Your task to perform on an android device: check data usage Image 0: 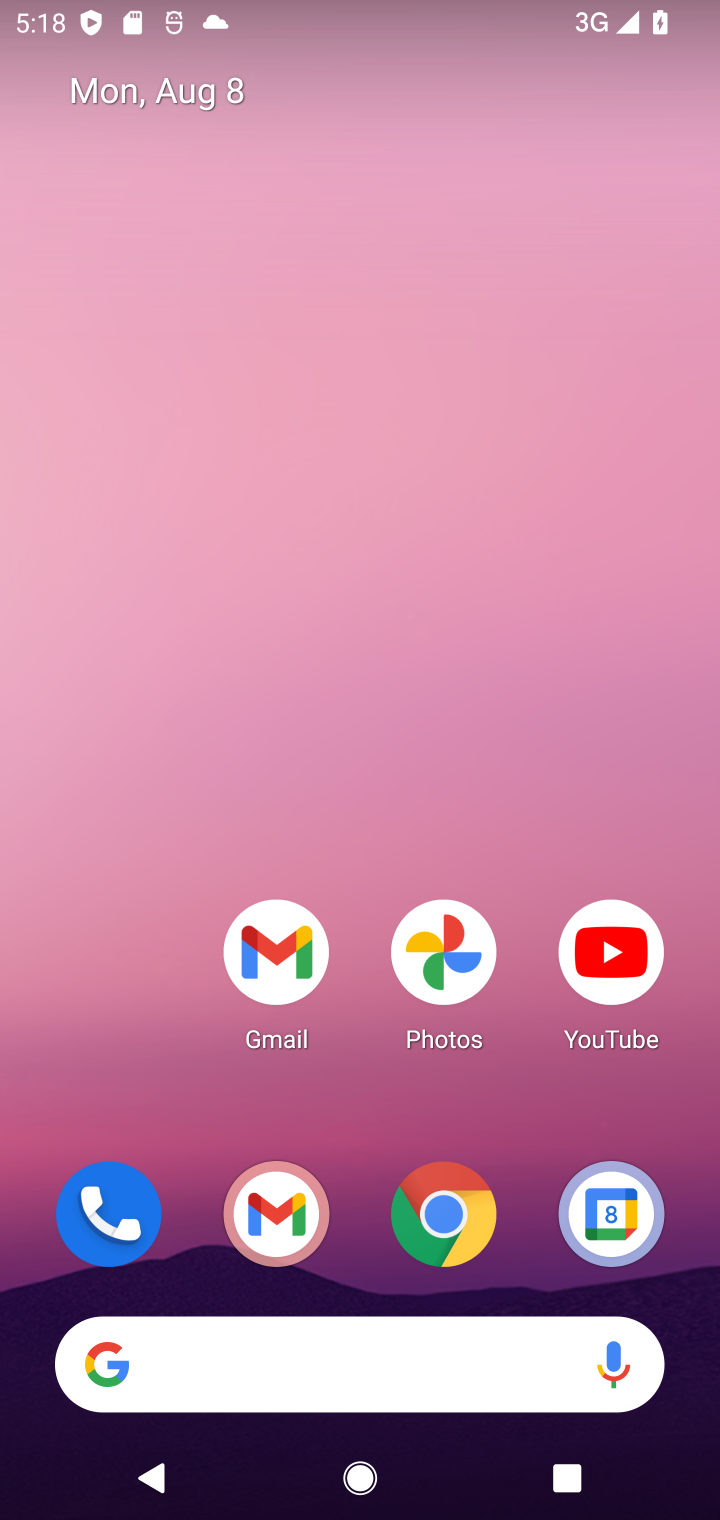
Step 0: drag from (388, 645) to (416, 79)
Your task to perform on an android device: check data usage Image 1: 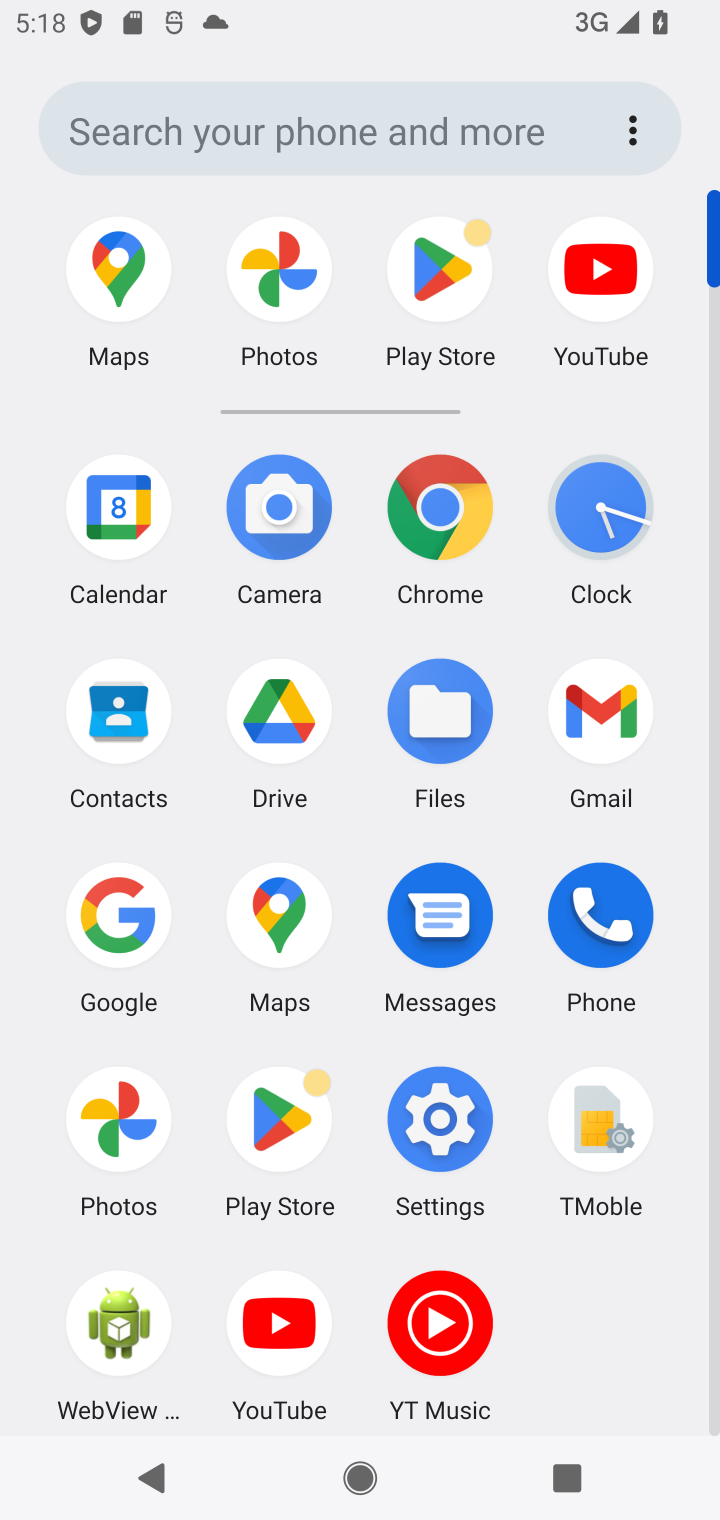
Step 1: click (432, 1122)
Your task to perform on an android device: check data usage Image 2: 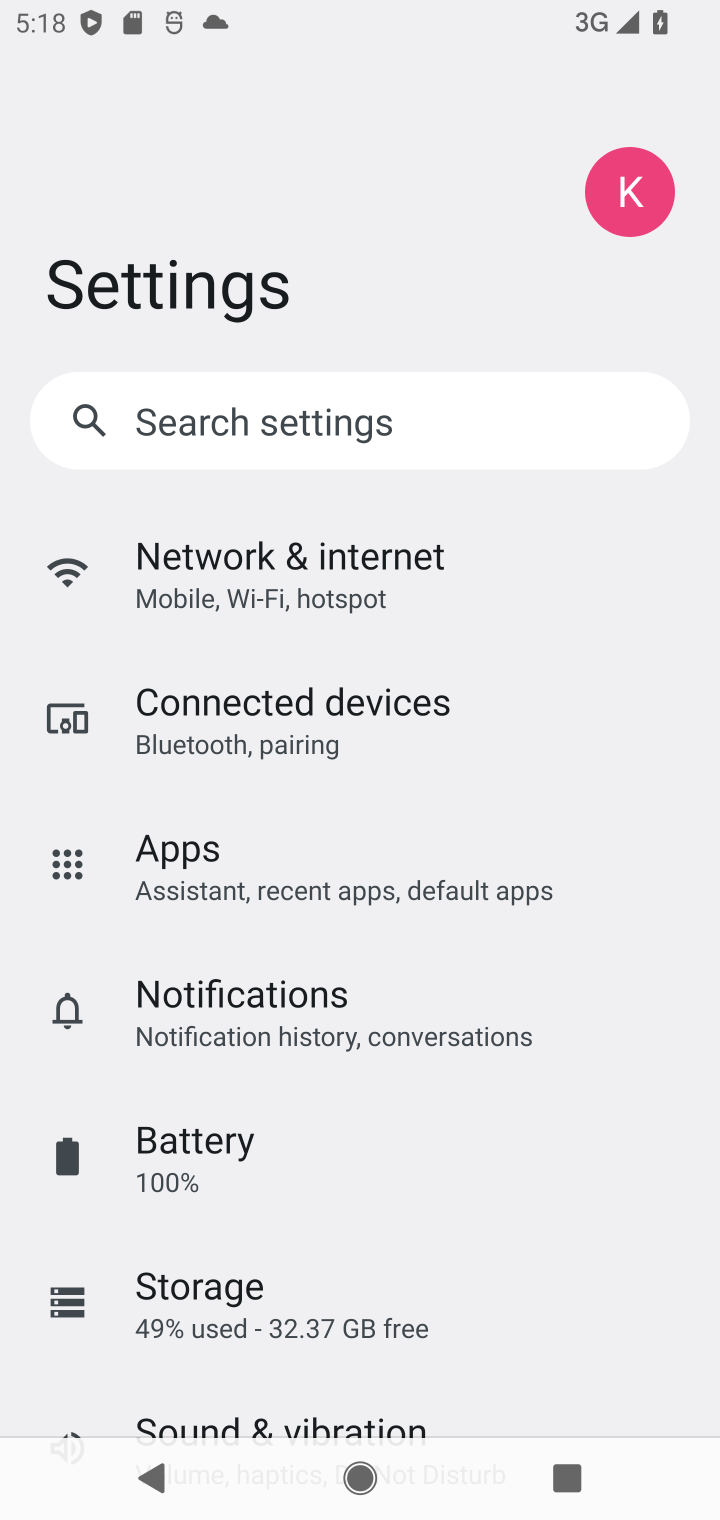
Step 2: drag from (202, 1330) to (230, 911)
Your task to perform on an android device: check data usage Image 3: 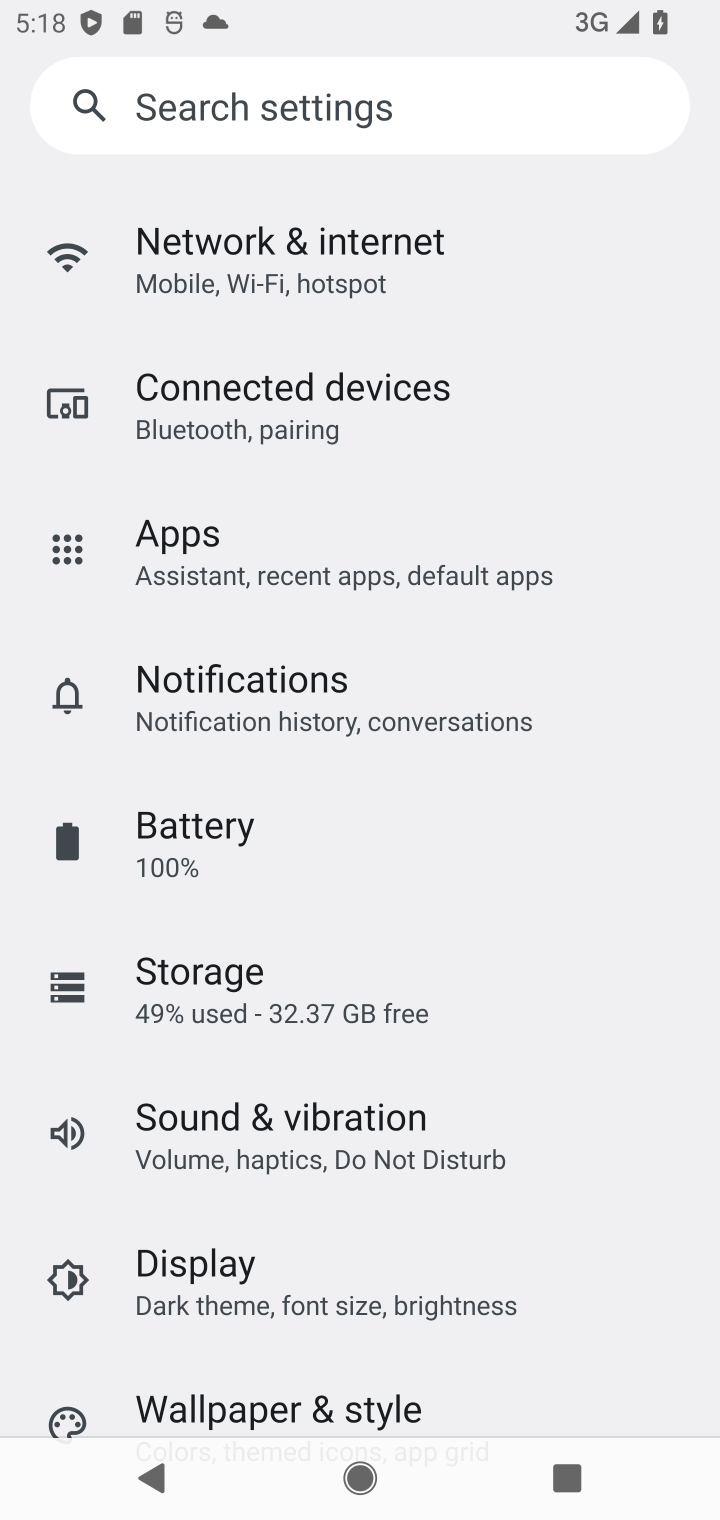
Step 3: click (256, 247)
Your task to perform on an android device: check data usage Image 4: 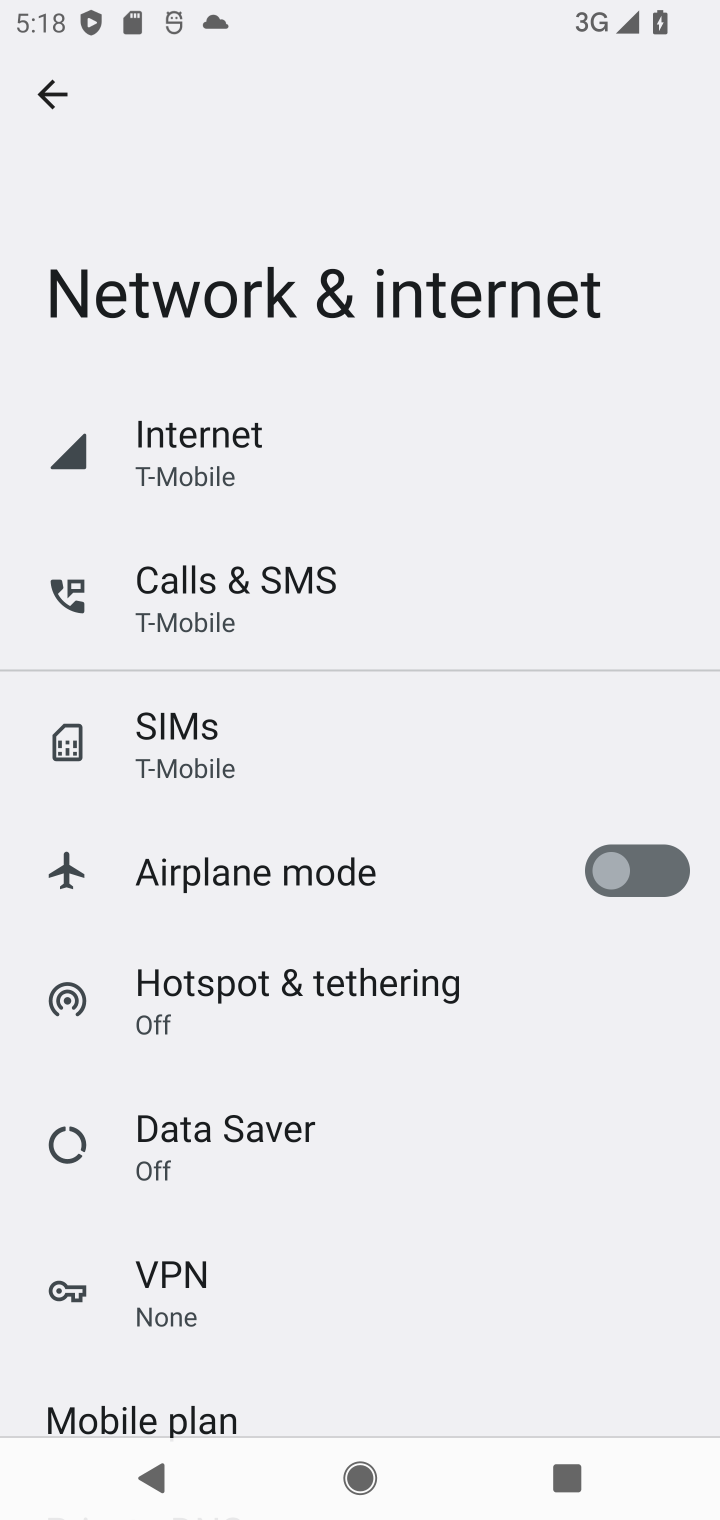
Step 4: click (167, 466)
Your task to perform on an android device: check data usage Image 5: 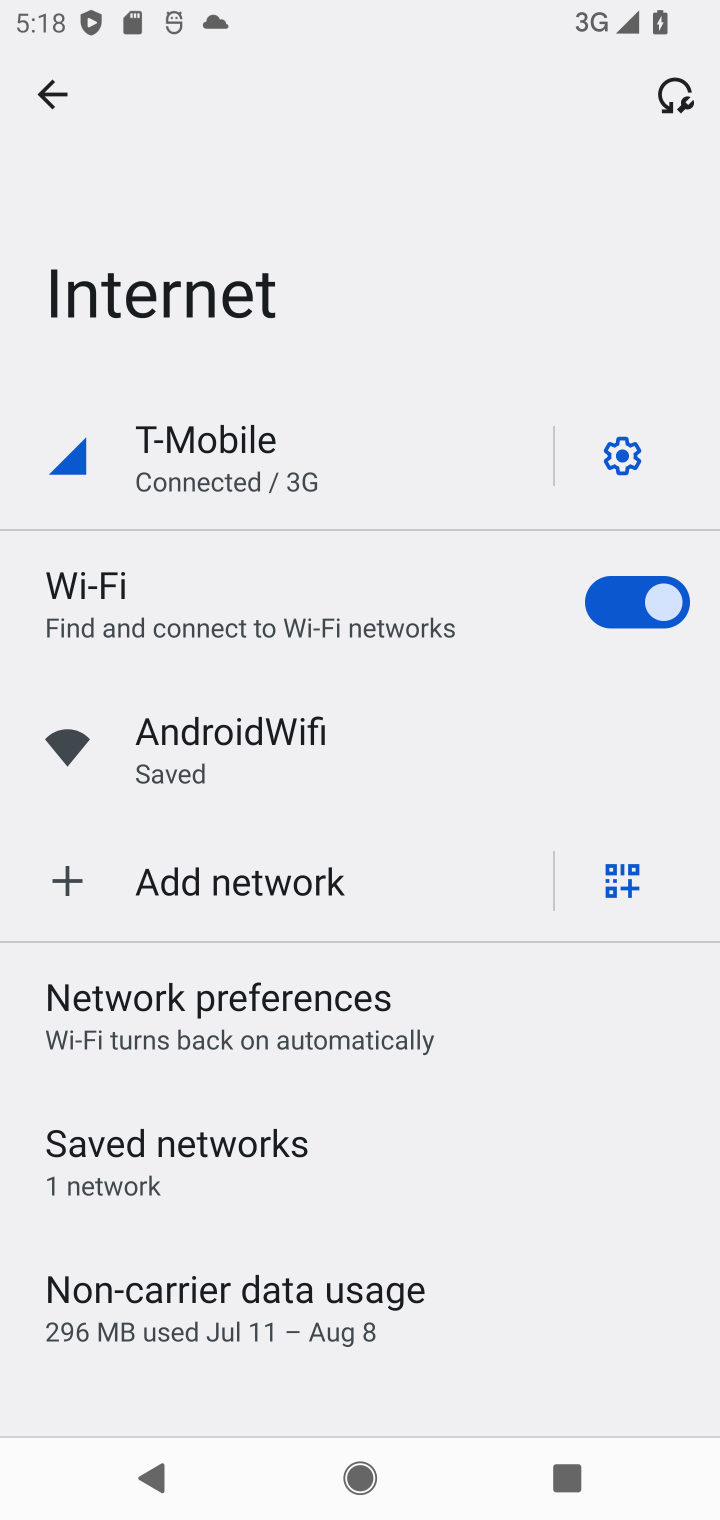
Step 5: click (258, 1308)
Your task to perform on an android device: check data usage Image 6: 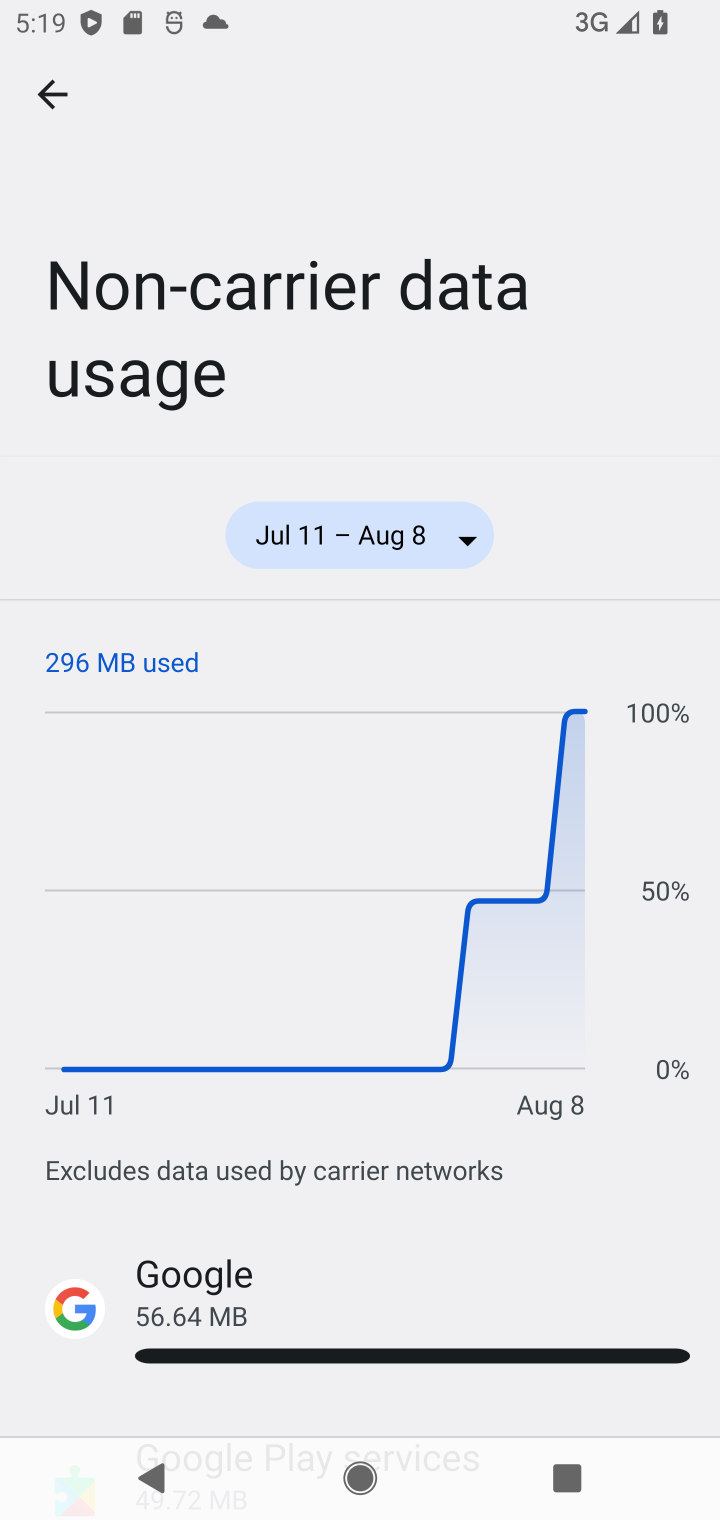
Step 6: task complete